Your task to perform on an android device: Add "logitech g910" to the cart on walmart.com, then select checkout. Image 0: 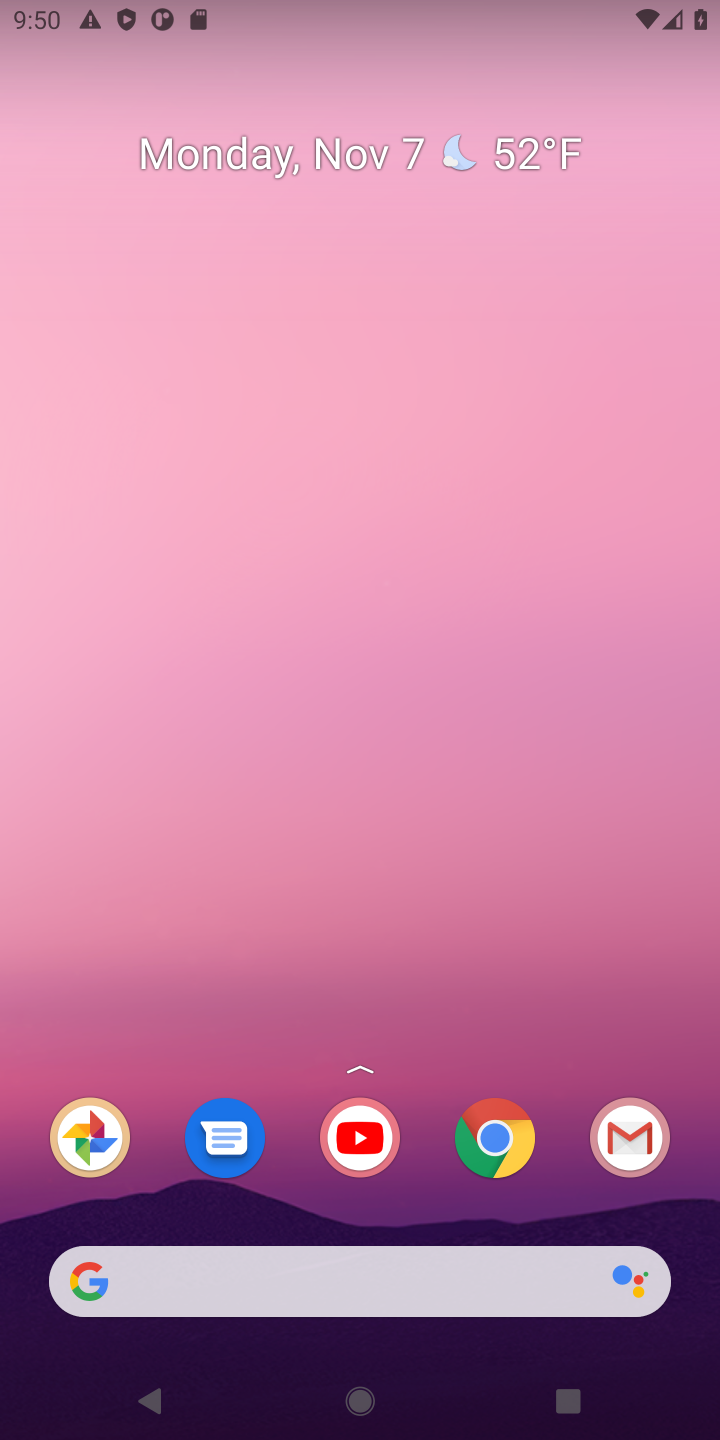
Step 0: press home button
Your task to perform on an android device: Add "logitech g910" to the cart on walmart.com, then select checkout. Image 1: 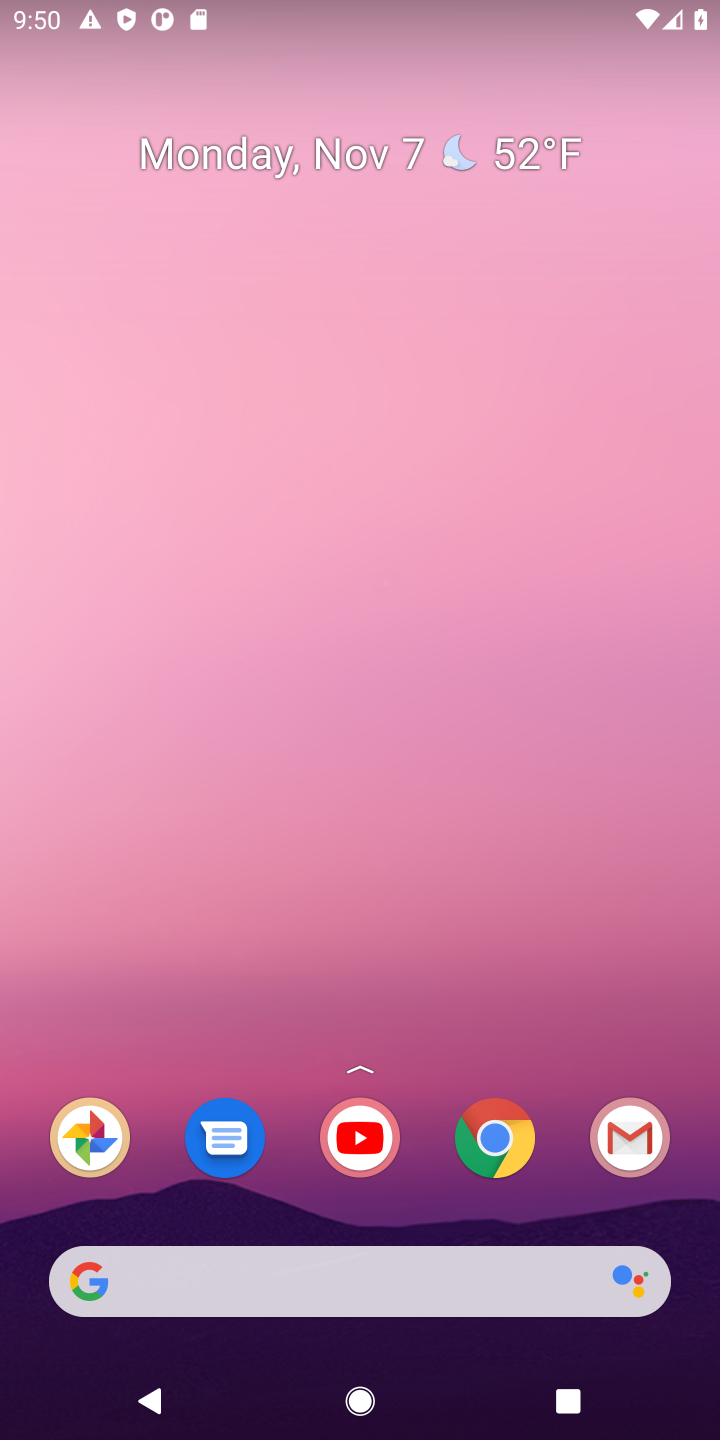
Step 1: drag from (456, 1027) to (436, 236)
Your task to perform on an android device: Add "logitech g910" to the cart on walmart.com, then select checkout. Image 2: 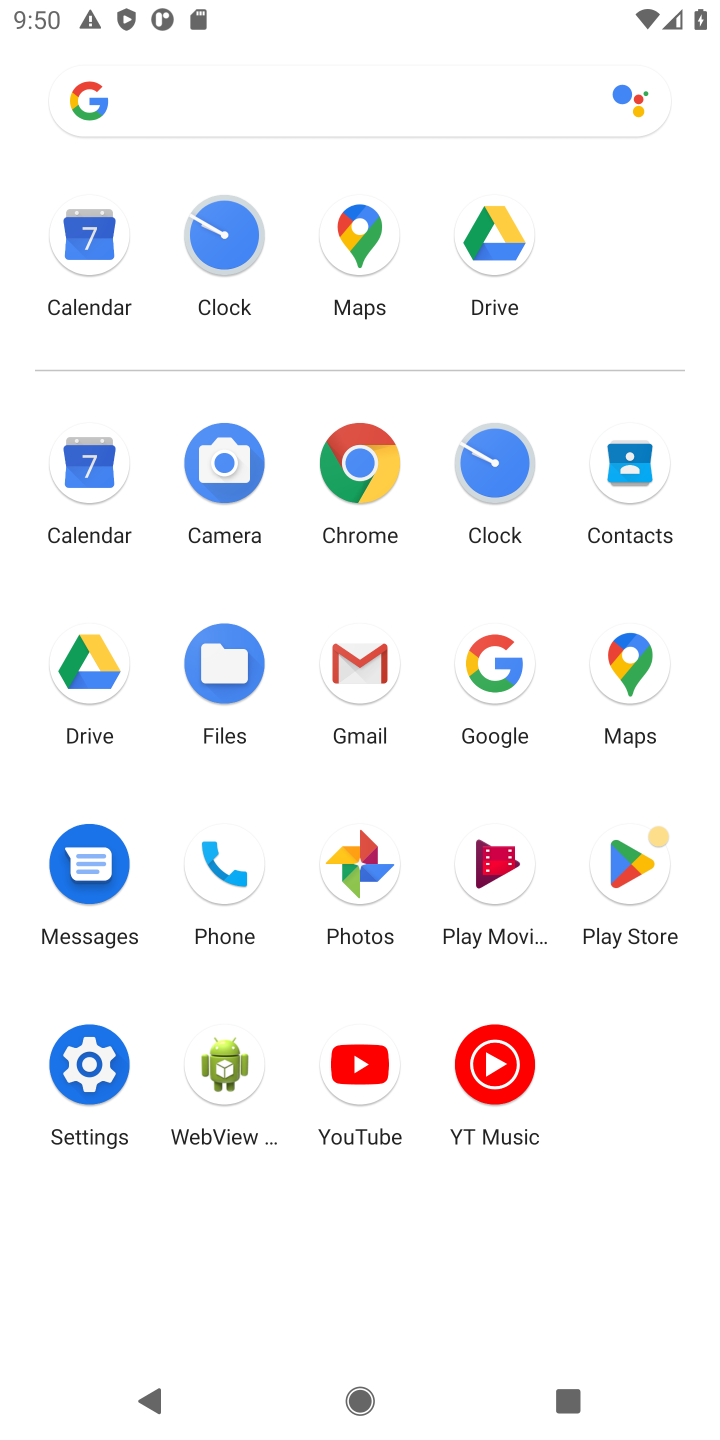
Step 2: click (364, 464)
Your task to perform on an android device: Add "logitech g910" to the cart on walmart.com, then select checkout. Image 3: 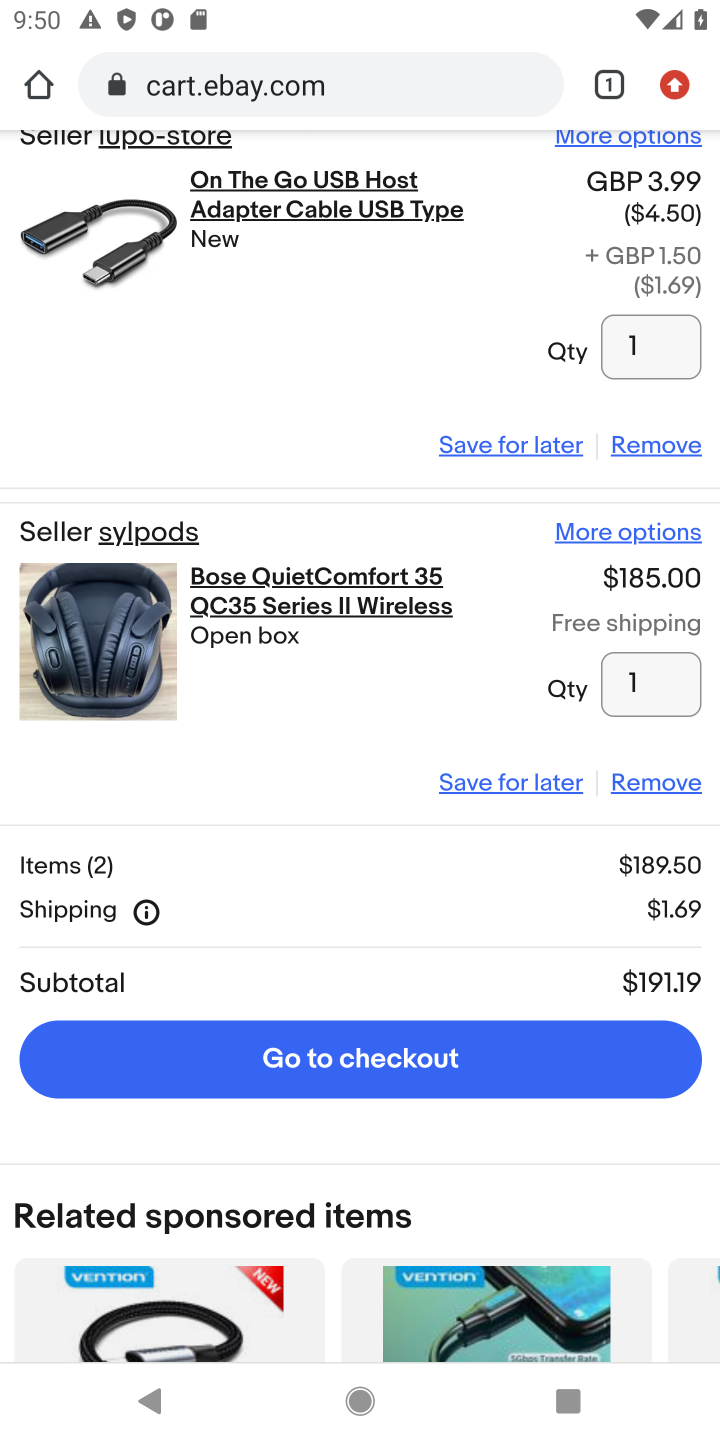
Step 3: click (400, 82)
Your task to perform on an android device: Add "logitech g910" to the cart on walmart.com, then select checkout. Image 4: 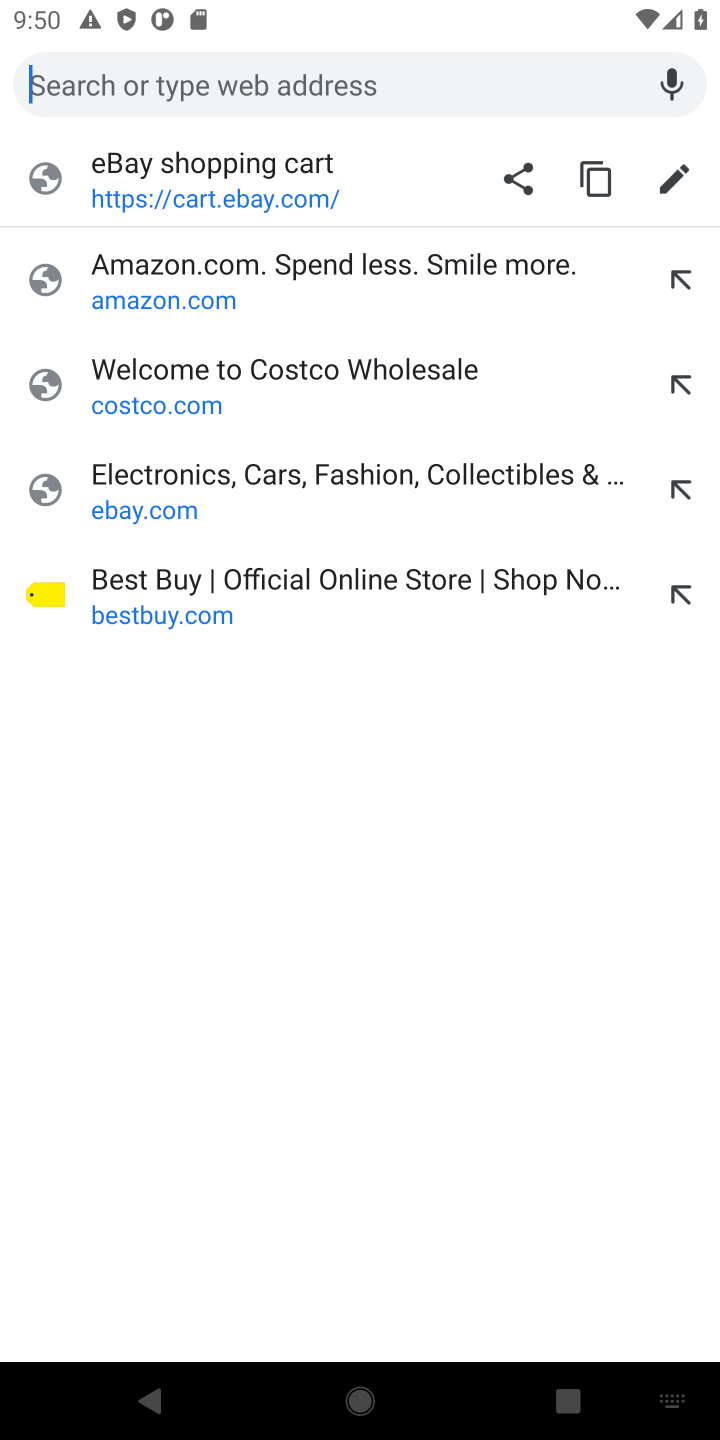
Step 4: type "walmart.com"
Your task to perform on an android device: Add "logitech g910" to the cart on walmart.com, then select checkout. Image 5: 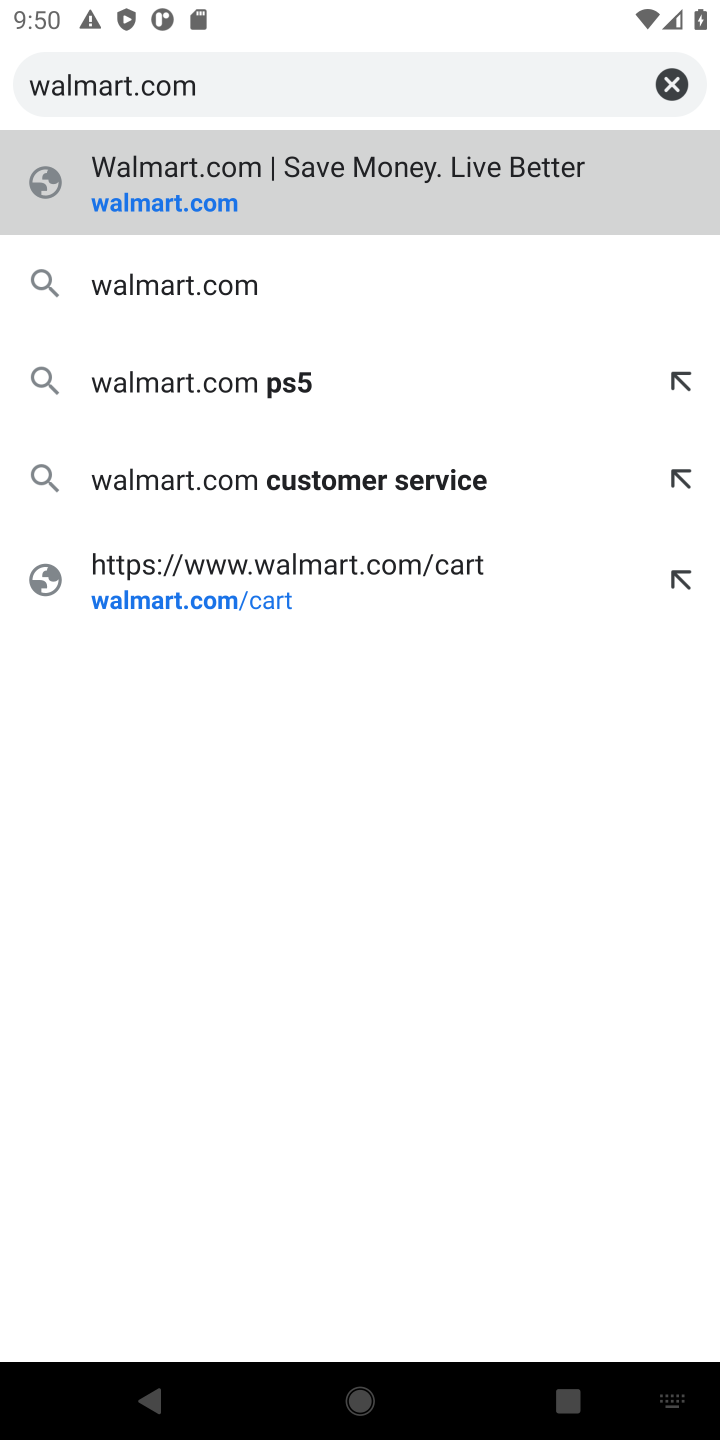
Step 5: press enter
Your task to perform on an android device: Add "logitech g910" to the cart on walmart.com, then select checkout. Image 6: 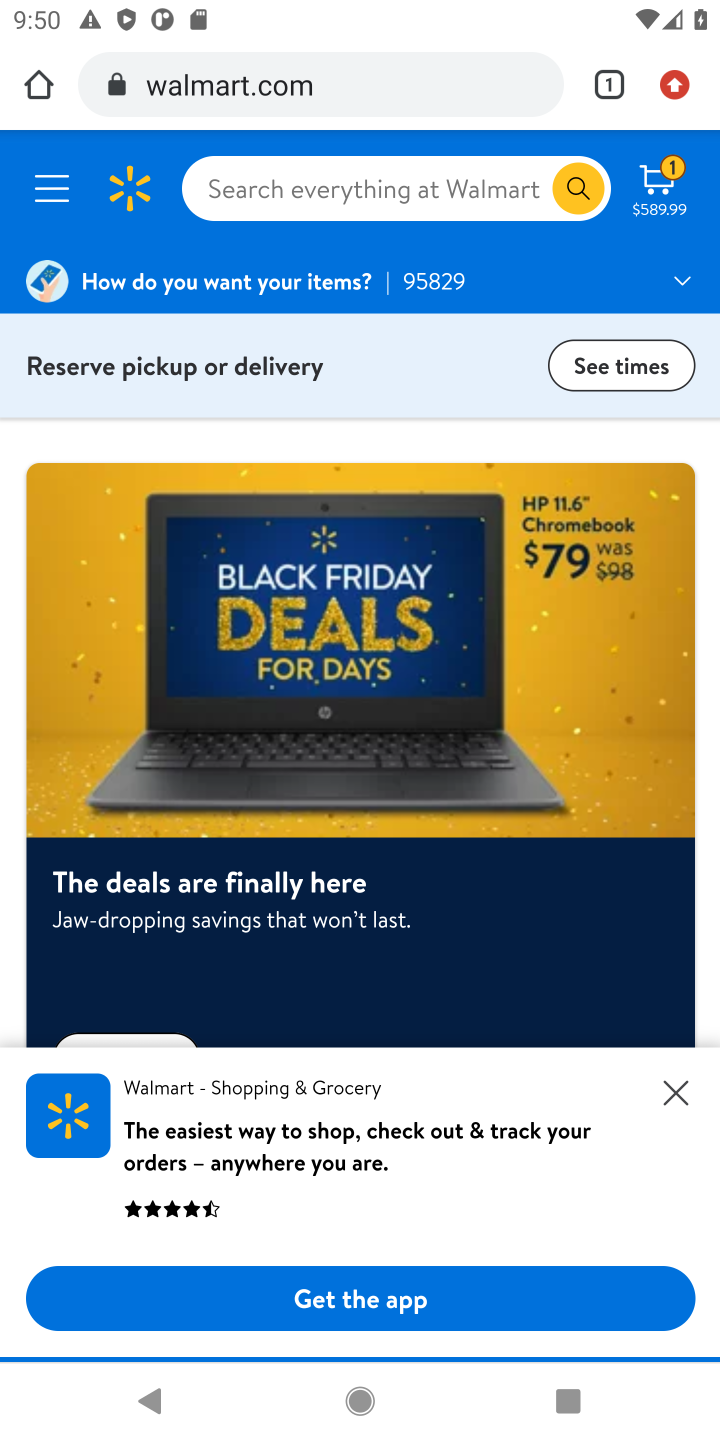
Step 6: click (398, 184)
Your task to perform on an android device: Add "logitech g910" to the cart on walmart.com, then select checkout. Image 7: 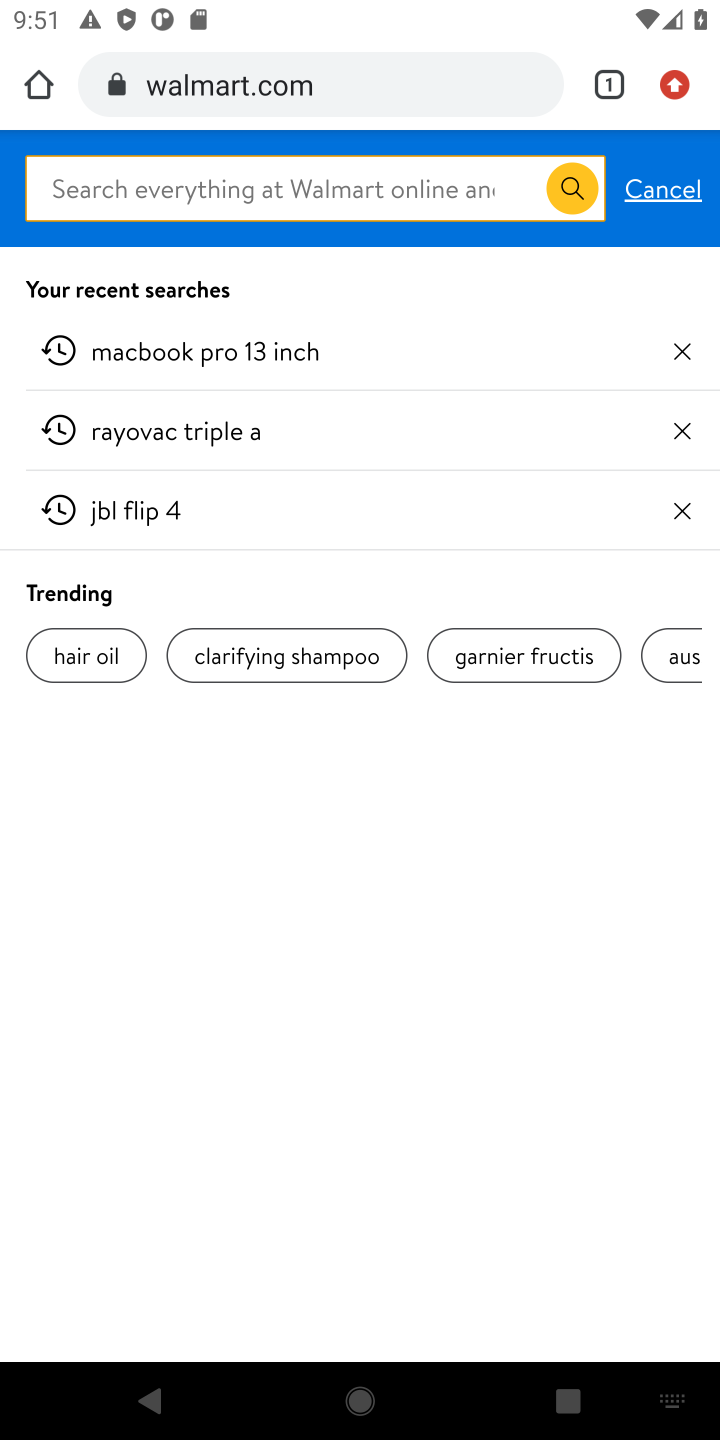
Step 7: type "logitech g910"
Your task to perform on an android device: Add "logitech g910" to the cart on walmart.com, then select checkout. Image 8: 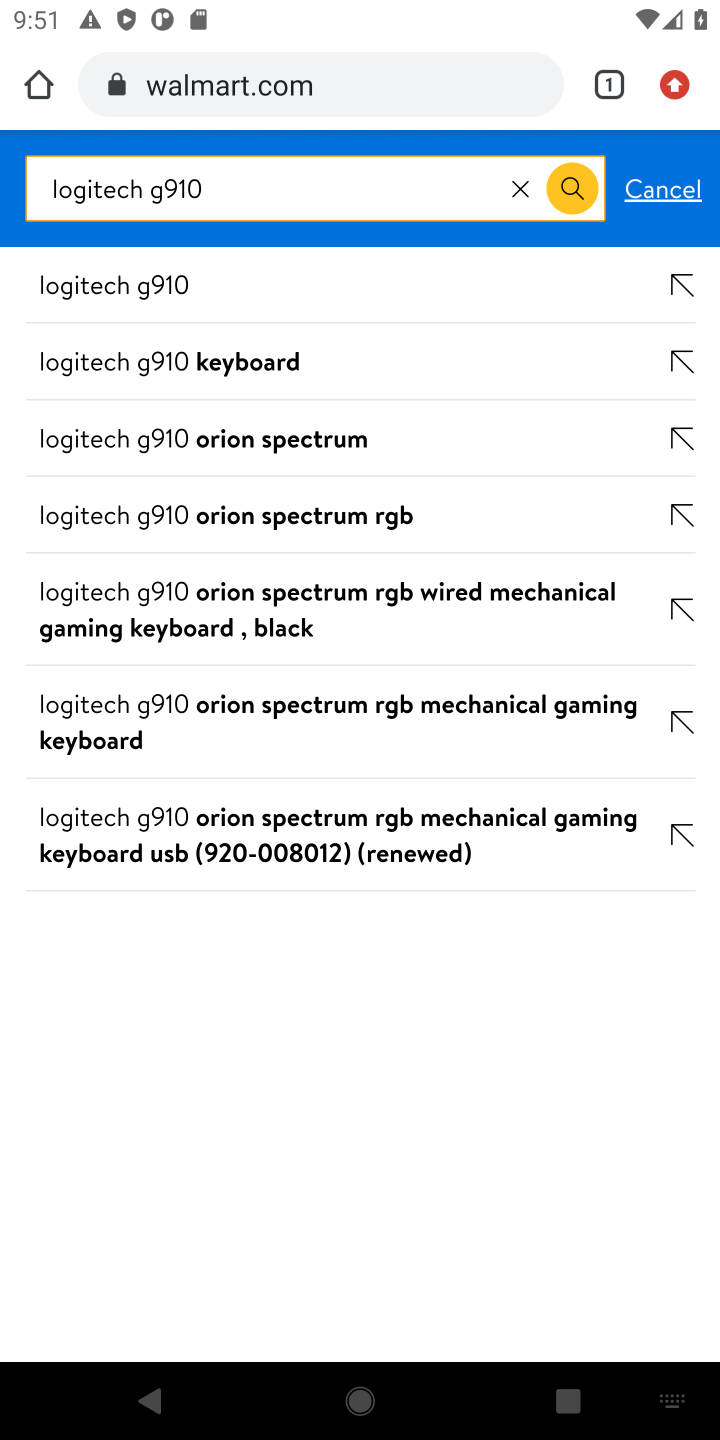
Step 8: press enter
Your task to perform on an android device: Add "logitech g910" to the cart on walmart.com, then select checkout. Image 9: 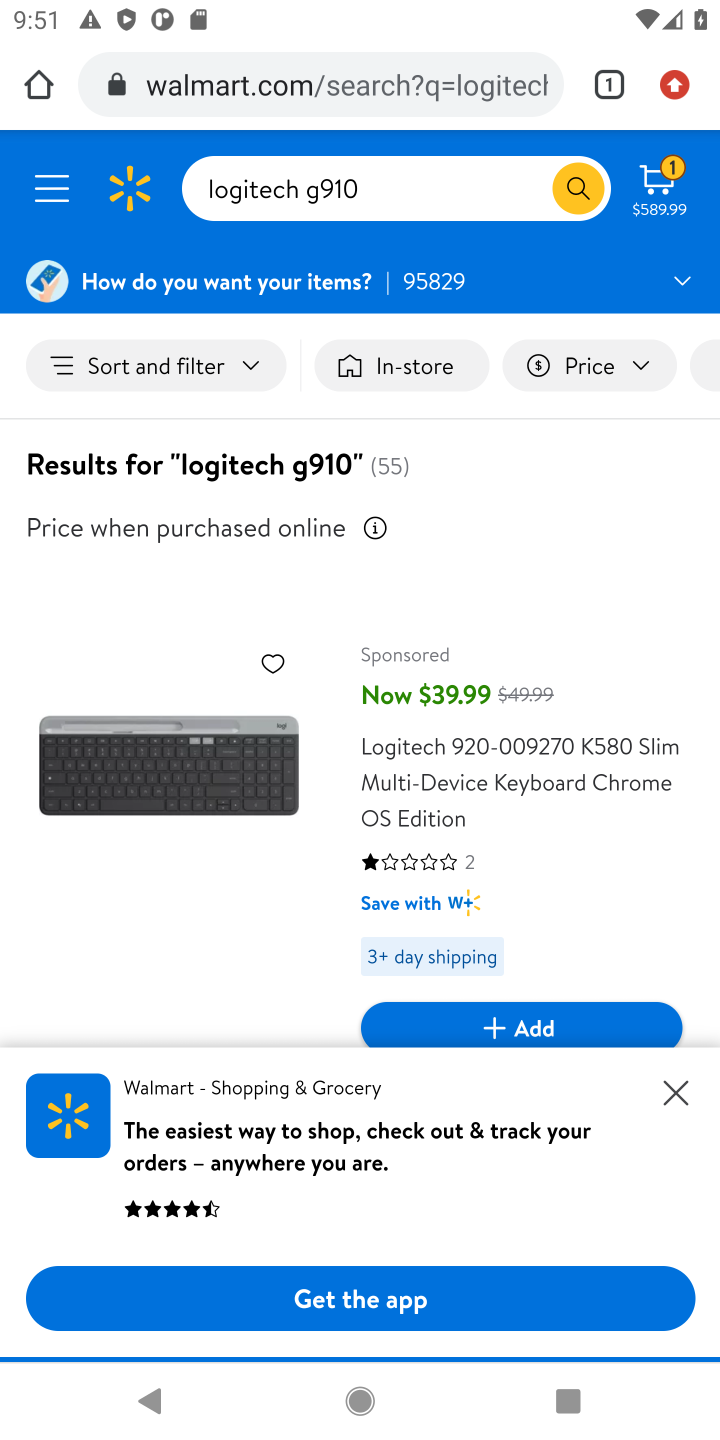
Step 9: drag from (392, 843) to (463, 216)
Your task to perform on an android device: Add "logitech g910" to the cart on walmart.com, then select checkout. Image 10: 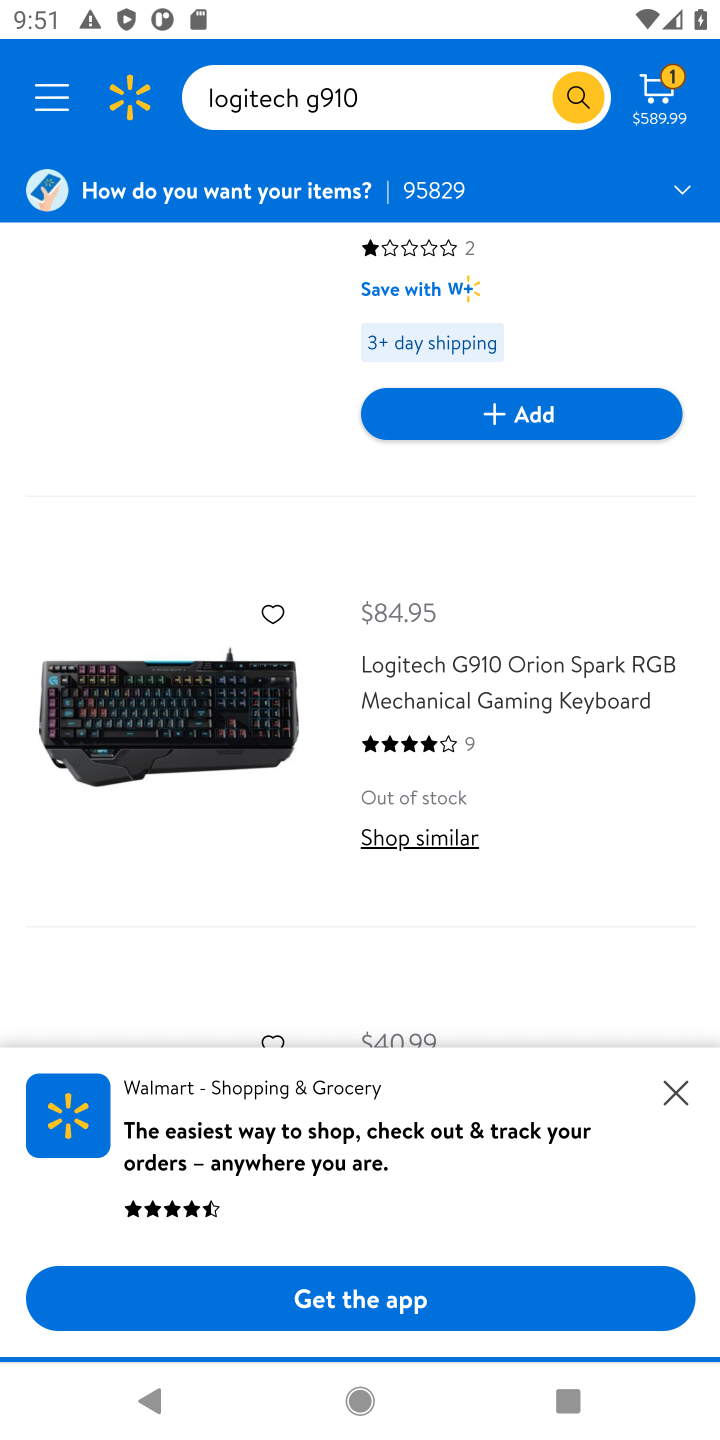
Step 10: click (394, 692)
Your task to perform on an android device: Add "logitech g910" to the cart on walmart.com, then select checkout. Image 11: 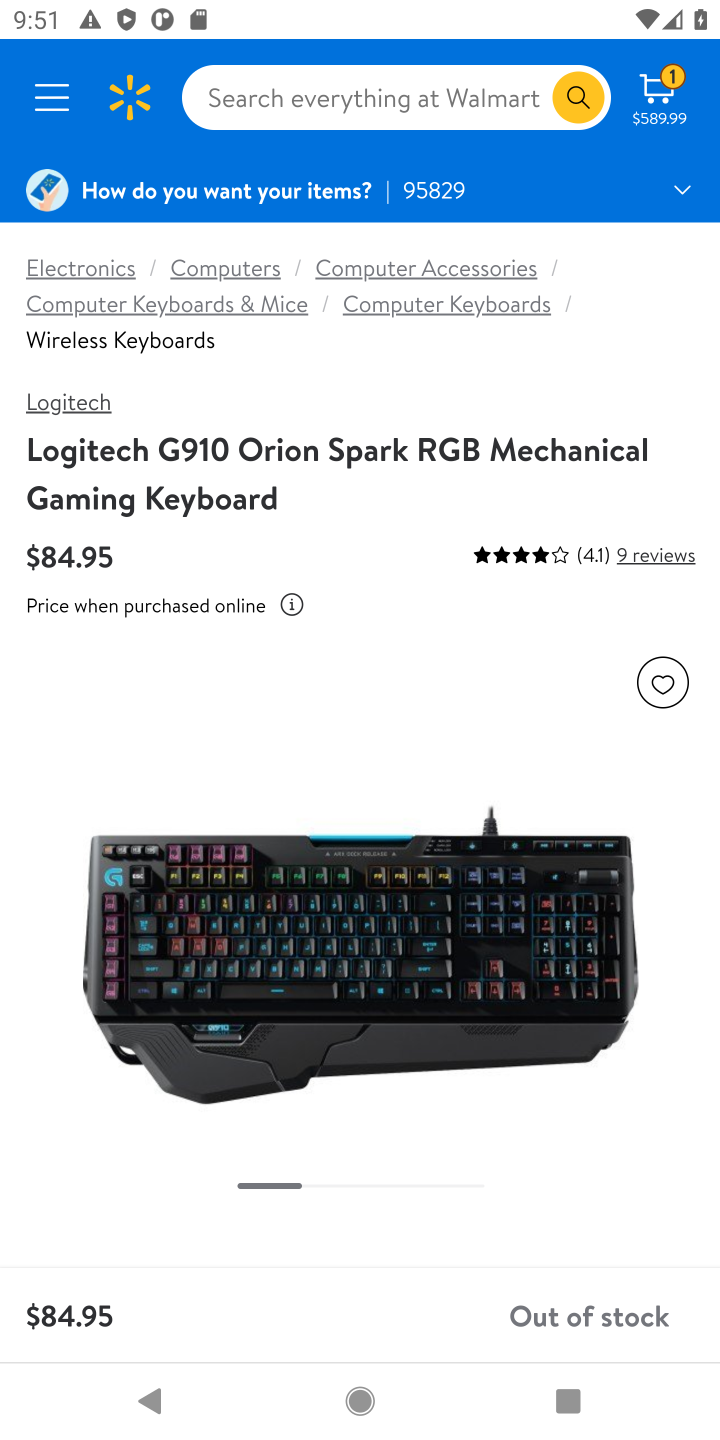
Step 11: task complete